Your task to perform on an android device: empty trash in the gmail app Image 0: 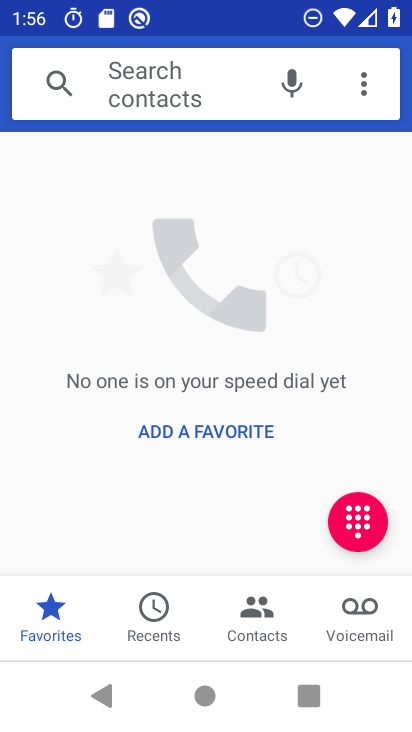
Step 0: press home button
Your task to perform on an android device: empty trash in the gmail app Image 1: 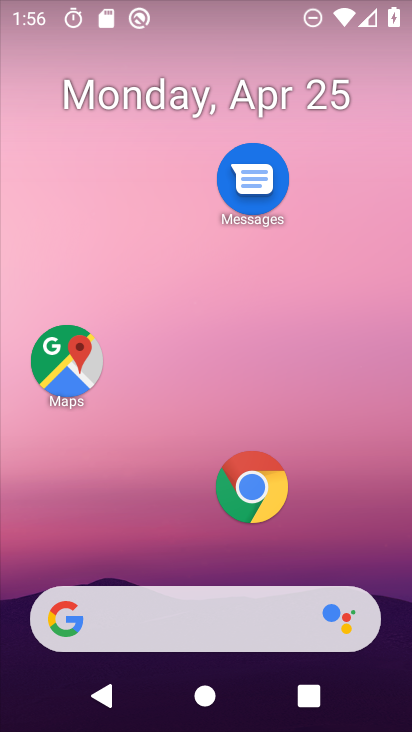
Step 1: drag from (317, 578) to (341, 5)
Your task to perform on an android device: empty trash in the gmail app Image 2: 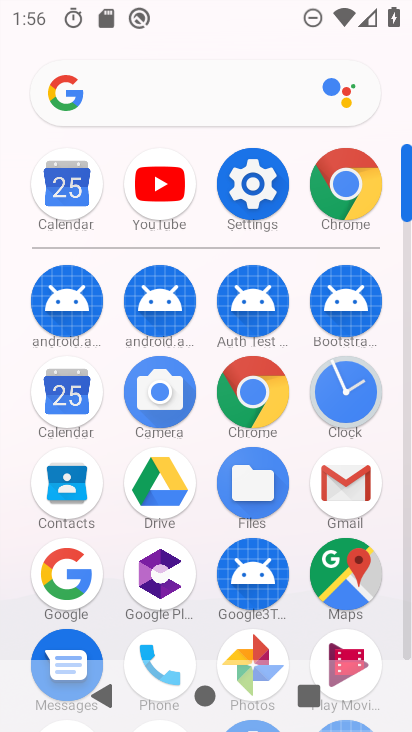
Step 2: click (339, 472)
Your task to perform on an android device: empty trash in the gmail app Image 3: 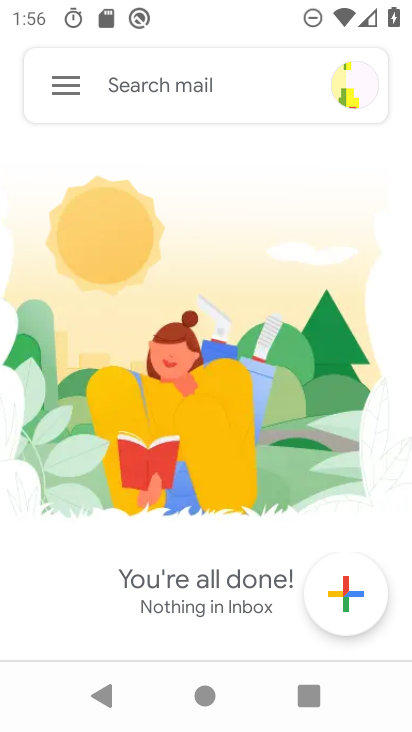
Step 3: click (49, 80)
Your task to perform on an android device: empty trash in the gmail app Image 4: 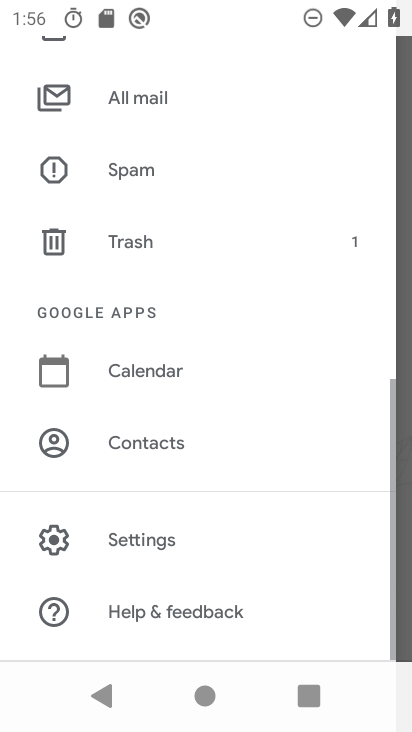
Step 4: drag from (137, 175) to (169, 588)
Your task to perform on an android device: empty trash in the gmail app Image 5: 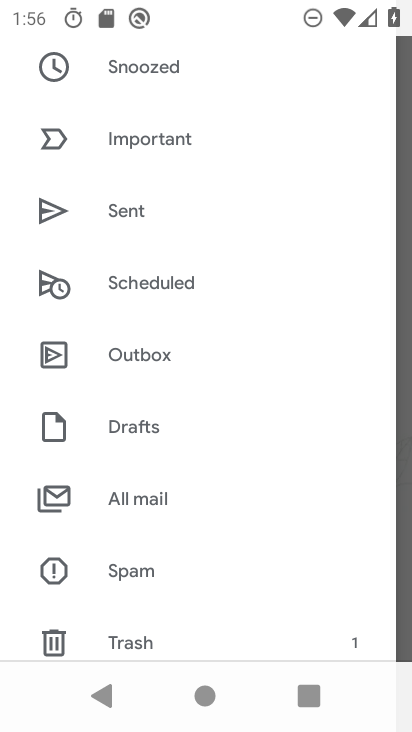
Step 5: drag from (160, 198) to (298, 6)
Your task to perform on an android device: empty trash in the gmail app Image 6: 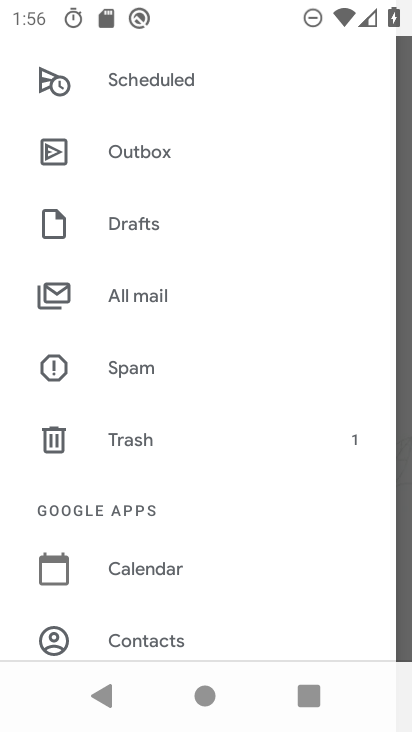
Step 6: click (97, 428)
Your task to perform on an android device: empty trash in the gmail app Image 7: 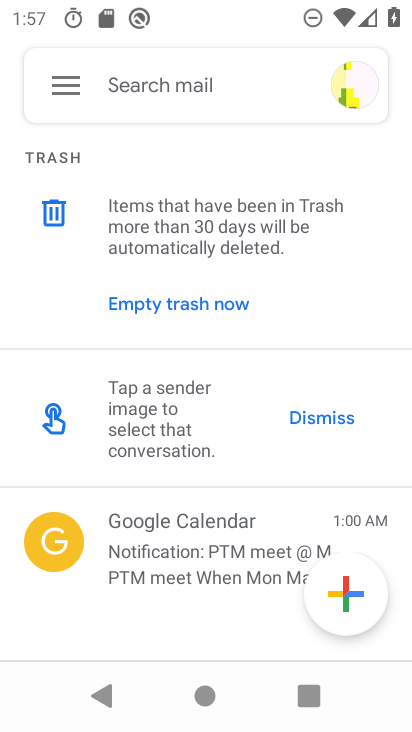
Step 7: task complete